Your task to perform on an android device: Go to sound settings Image 0: 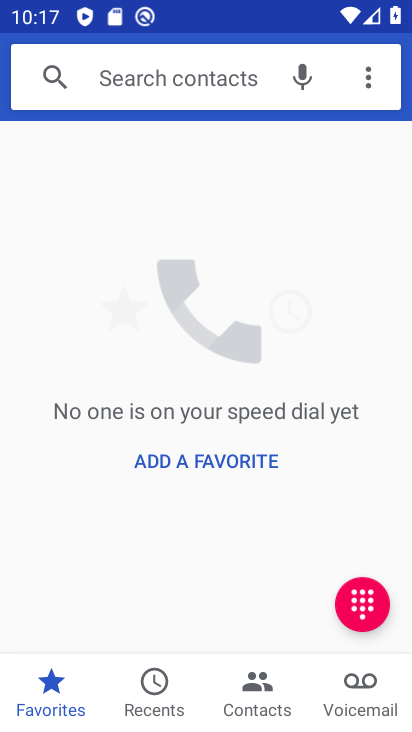
Step 0: press home button
Your task to perform on an android device: Go to sound settings Image 1: 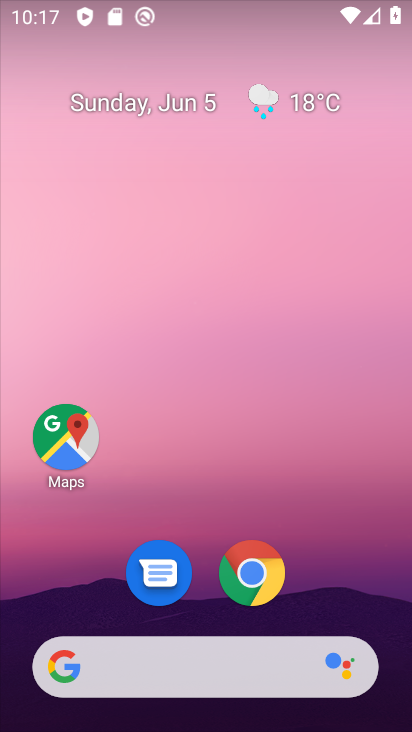
Step 1: drag from (98, 596) to (224, 36)
Your task to perform on an android device: Go to sound settings Image 2: 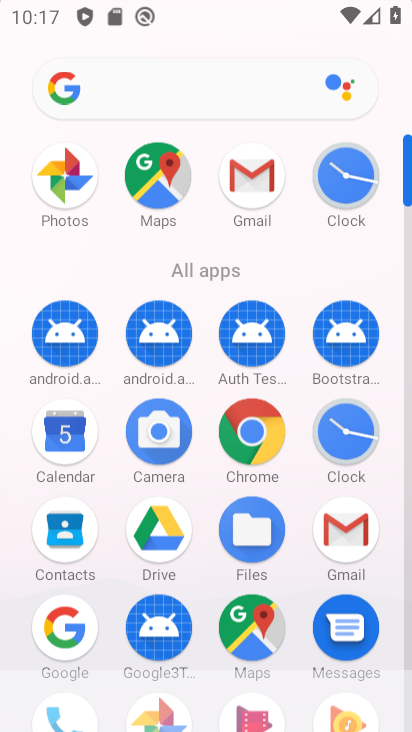
Step 2: drag from (204, 533) to (283, 164)
Your task to perform on an android device: Go to sound settings Image 3: 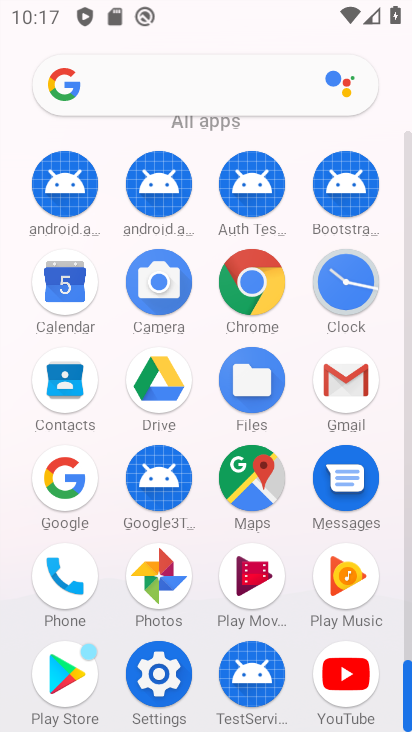
Step 3: click (164, 658)
Your task to perform on an android device: Go to sound settings Image 4: 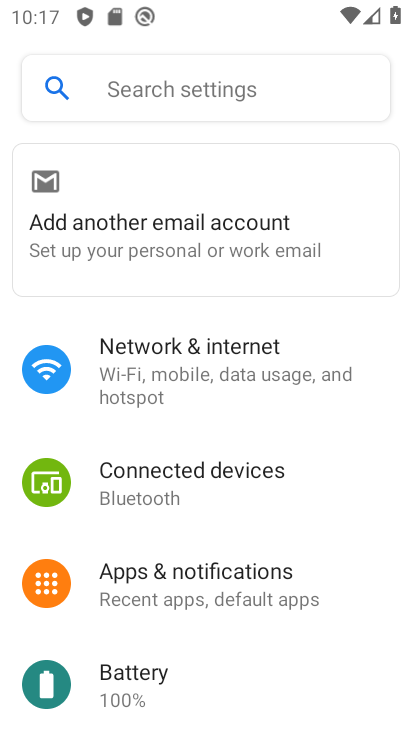
Step 4: drag from (177, 618) to (268, 257)
Your task to perform on an android device: Go to sound settings Image 5: 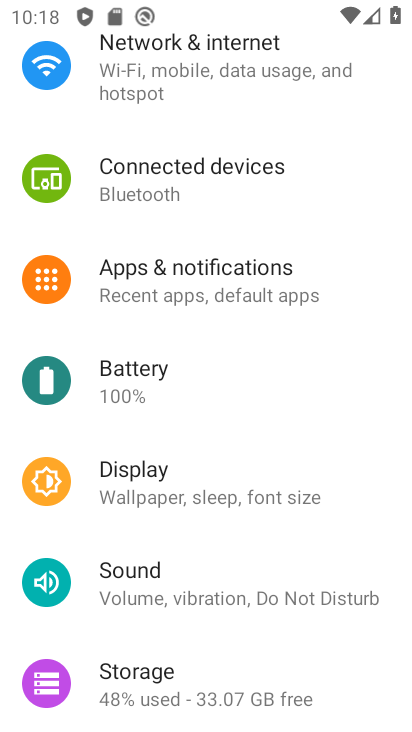
Step 5: click (147, 581)
Your task to perform on an android device: Go to sound settings Image 6: 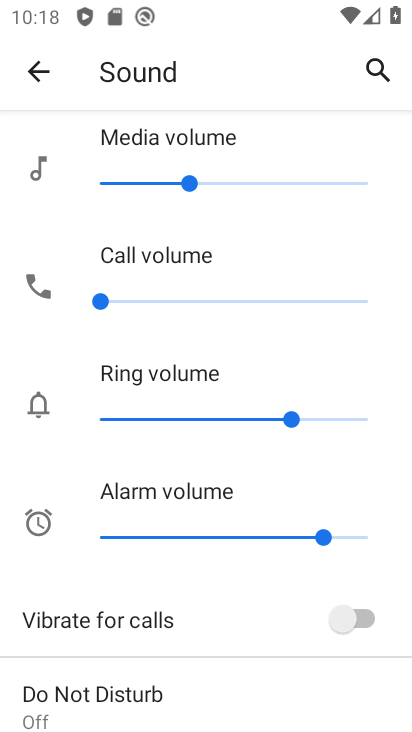
Step 6: task complete